Your task to perform on an android device: turn off wifi Image 0: 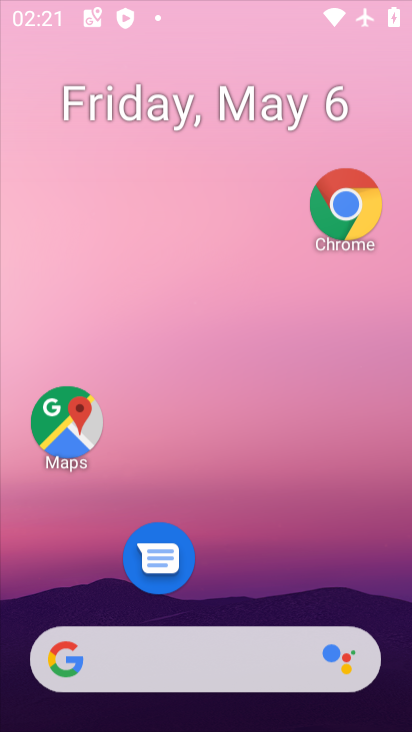
Step 0: press home button
Your task to perform on an android device: turn off wifi Image 1: 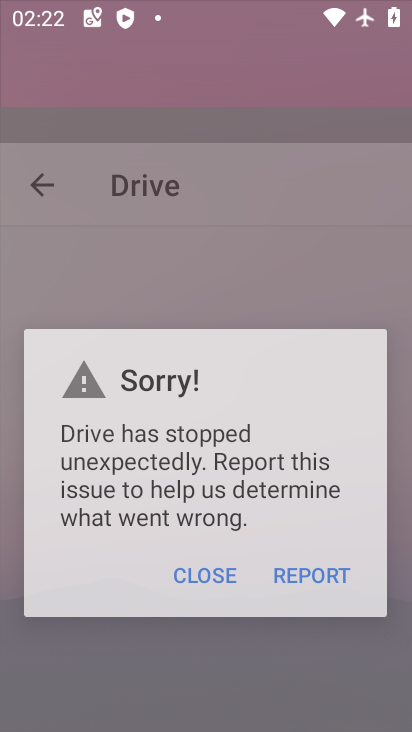
Step 1: drag from (140, 667) to (371, 38)
Your task to perform on an android device: turn off wifi Image 2: 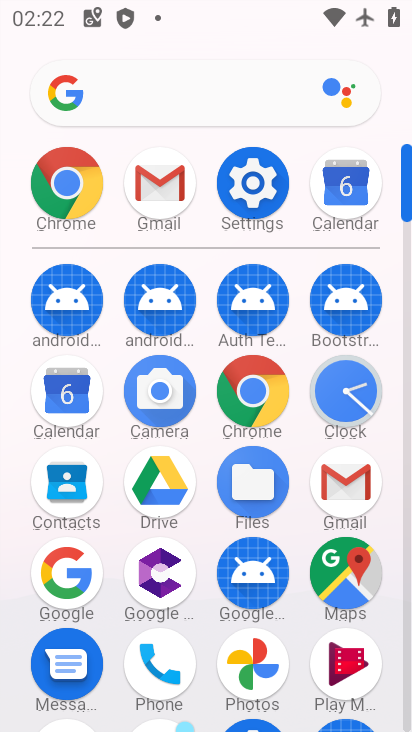
Step 2: click (249, 192)
Your task to perform on an android device: turn off wifi Image 3: 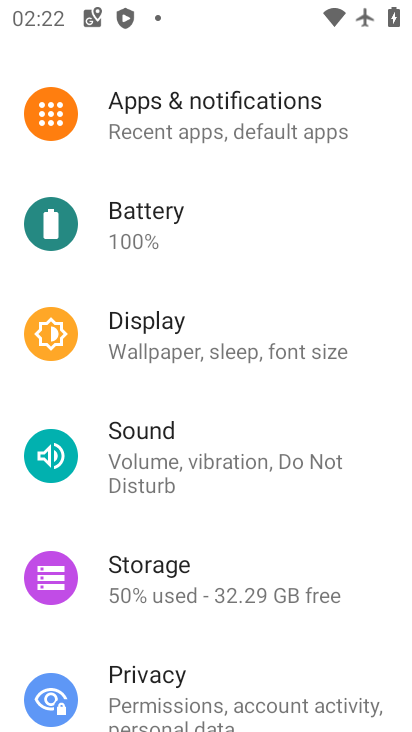
Step 3: drag from (259, 174) to (209, 521)
Your task to perform on an android device: turn off wifi Image 4: 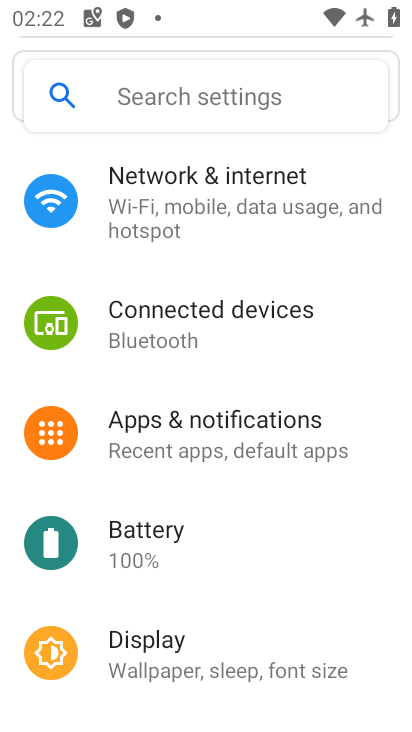
Step 4: click (239, 198)
Your task to perform on an android device: turn off wifi Image 5: 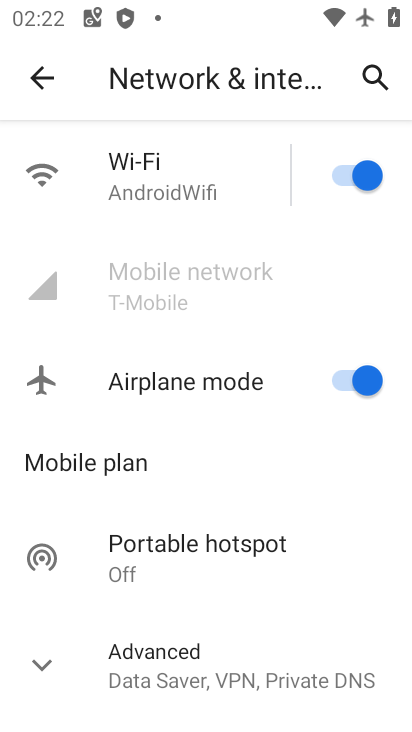
Step 5: click (339, 176)
Your task to perform on an android device: turn off wifi Image 6: 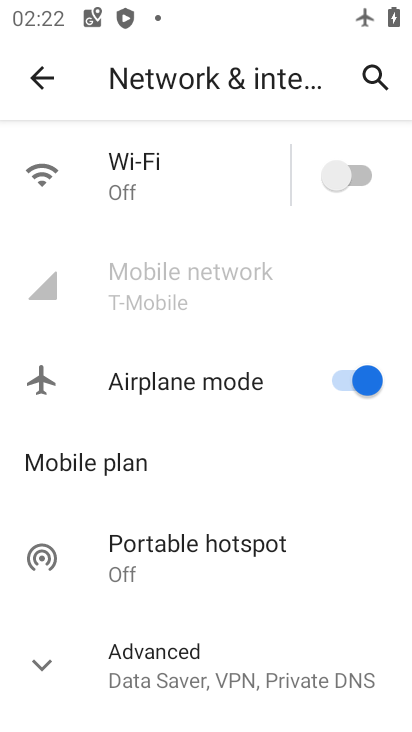
Step 6: task complete